Your task to perform on an android device: open a bookmark in the chrome app Image 0: 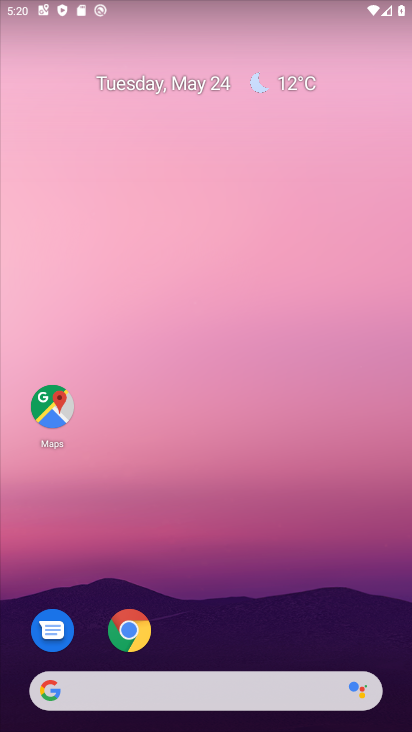
Step 0: click (125, 648)
Your task to perform on an android device: open a bookmark in the chrome app Image 1: 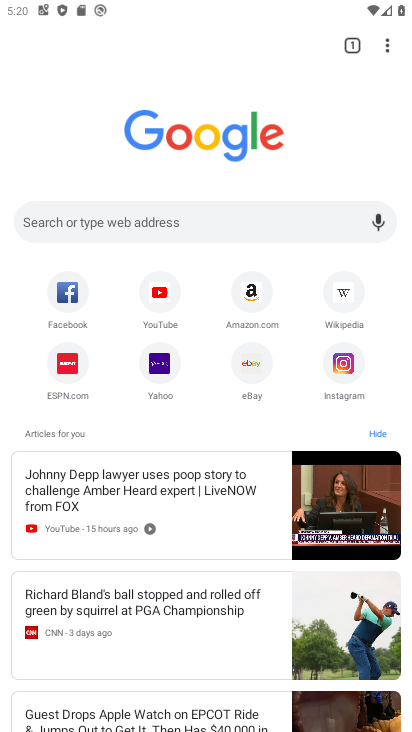
Step 1: click (391, 55)
Your task to perform on an android device: open a bookmark in the chrome app Image 2: 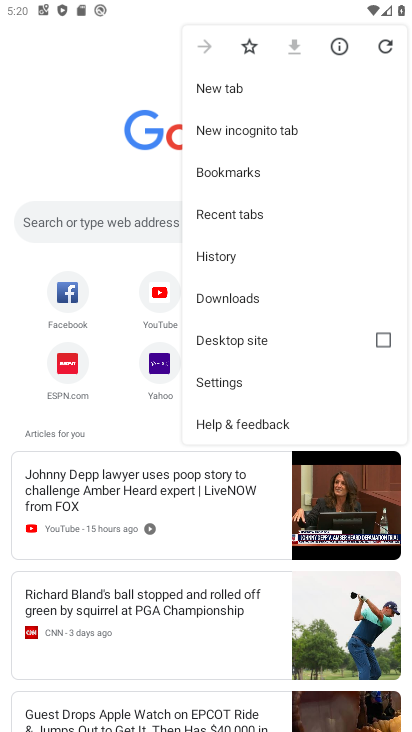
Step 2: click (242, 165)
Your task to perform on an android device: open a bookmark in the chrome app Image 3: 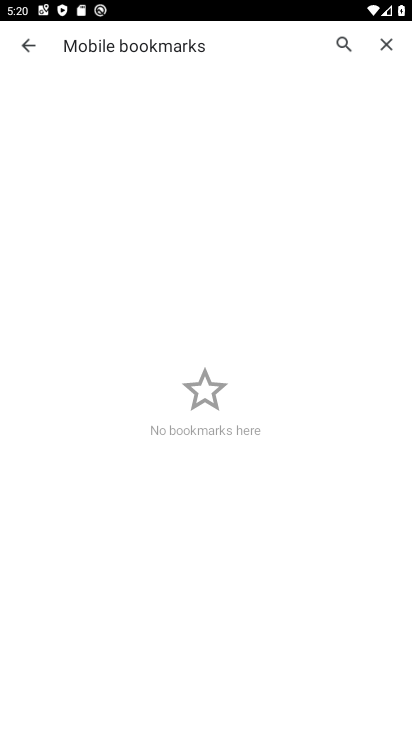
Step 3: task complete